Your task to perform on an android device: turn off notifications in google photos Image 0: 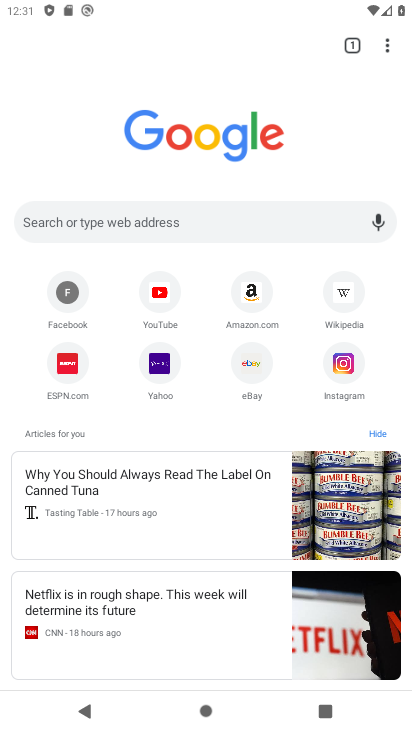
Step 0: press home button
Your task to perform on an android device: turn off notifications in google photos Image 1: 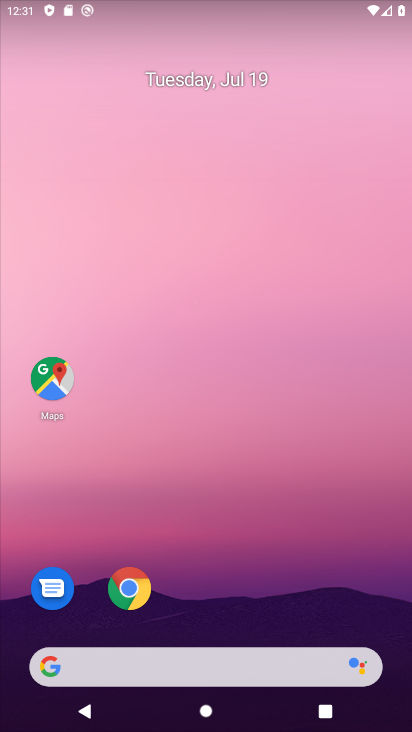
Step 1: drag from (312, 590) to (295, 60)
Your task to perform on an android device: turn off notifications in google photos Image 2: 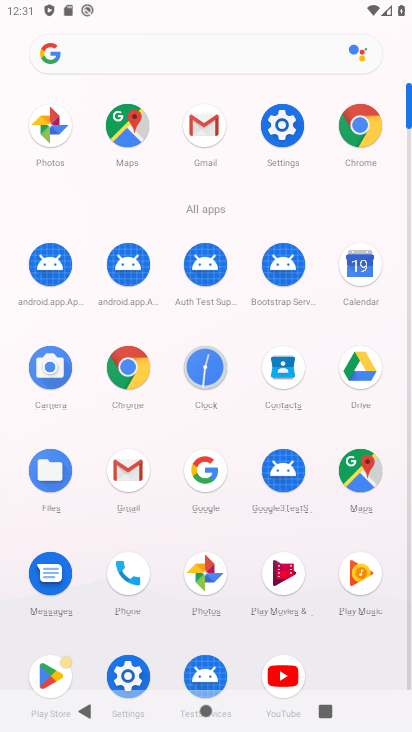
Step 2: click (49, 132)
Your task to perform on an android device: turn off notifications in google photos Image 3: 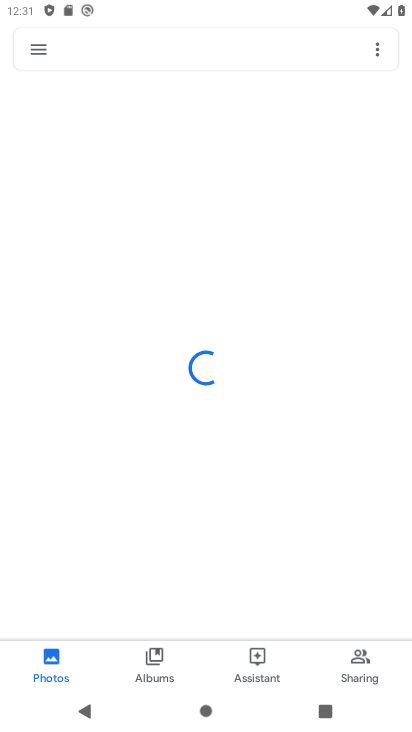
Step 3: click (32, 47)
Your task to perform on an android device: turn off notifications in google photos Image 4: 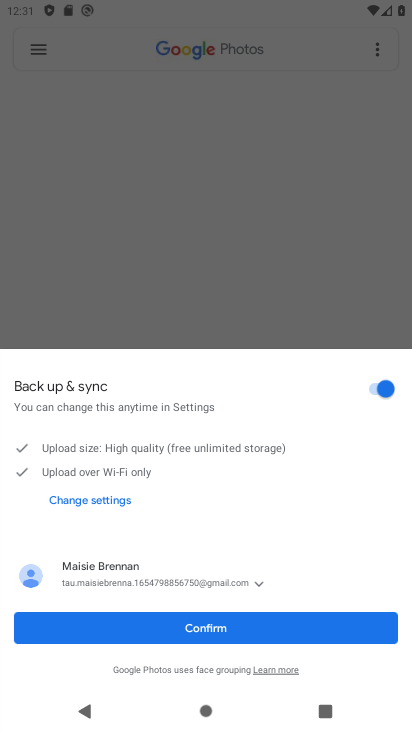
Step 4: click (184, 635)
Your task to perform on an android device: turn off notifications in google photos Image 5: 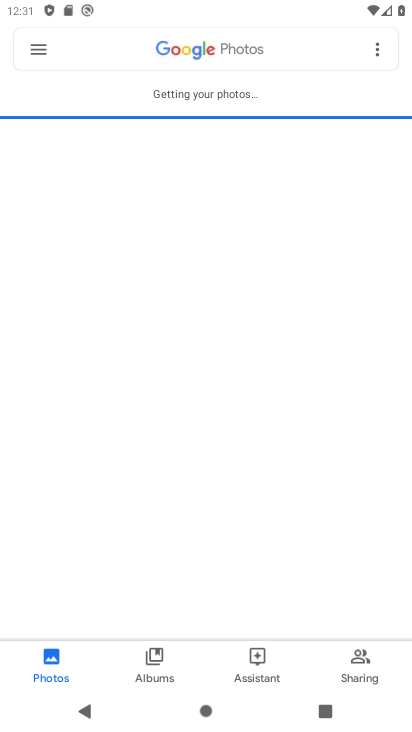
Step 5: click (28, 42)
Your task to perform on an android device: turn off notifications in google photos Image 6: 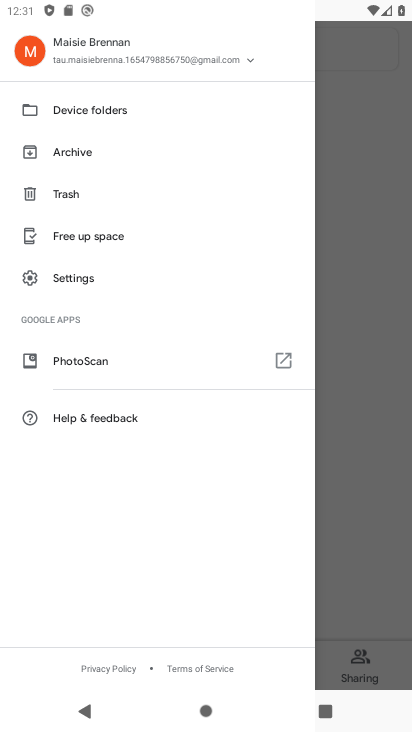
Step 6: click (69, 279)
Your task to perform on an android device: turn off notifications in google photos Image 7: 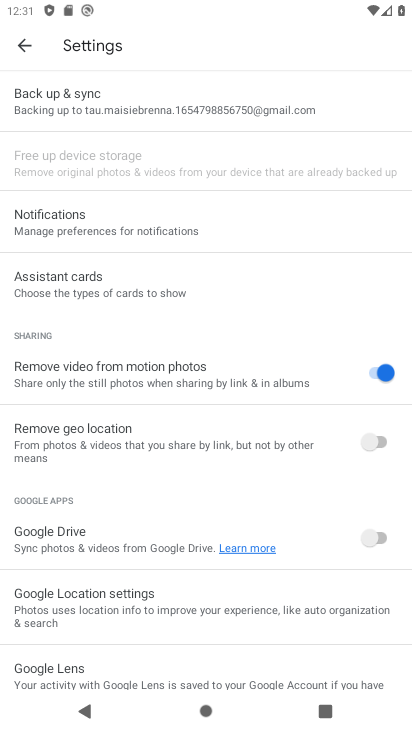
Step 7: click (57, 218)
Your task to perform on an android device: turn off notifications in google photos Image 8: 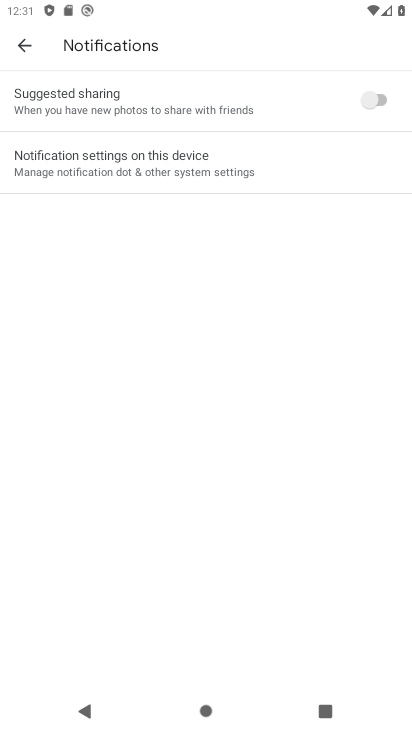
Step 8: click (72, 188)
Your task to perform on an android device: turn off notifications in google photos Image 9: 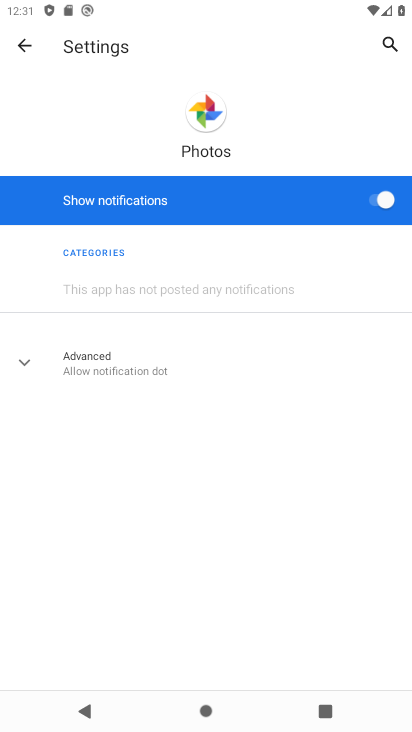
Step 9: click (379, 200)
Your task to perform on an android device: turn off notifications in google photos Image 10: 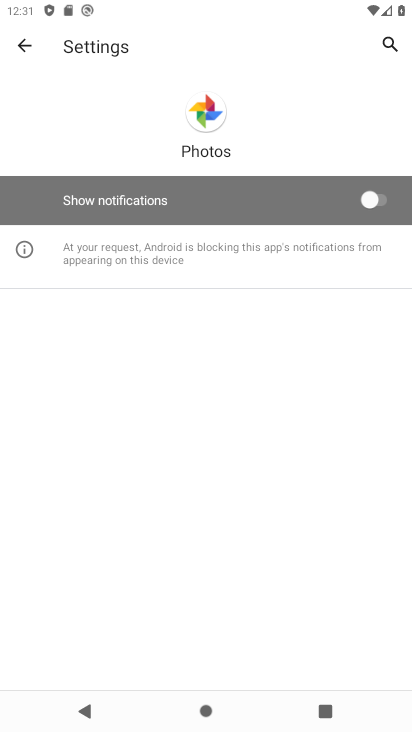
Step 10: task complete